Your task to perform on an android device: Open Chrome and go to settings Image 0: 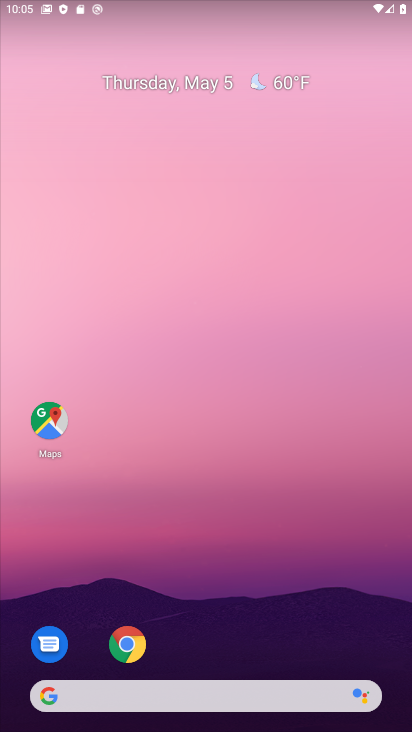
Step 0: drag from (370, 628) to (386, 79)
Your task to perform on an android device: Open Chrome and go to settings Image 1: 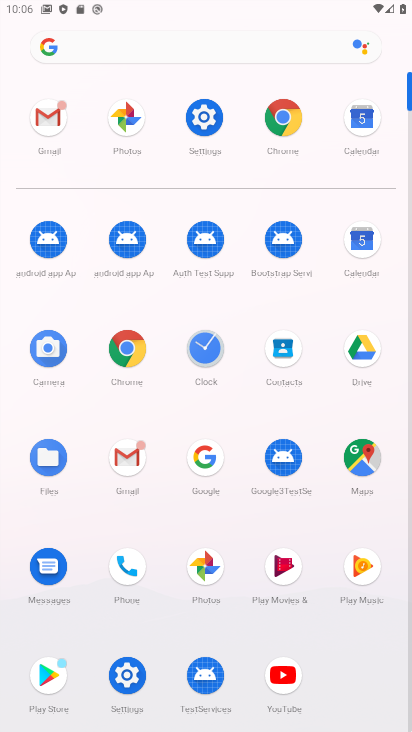
Step 1: click (112, 336)
Your task to perform on an android device: Open Chrome and go to settings Image 2: 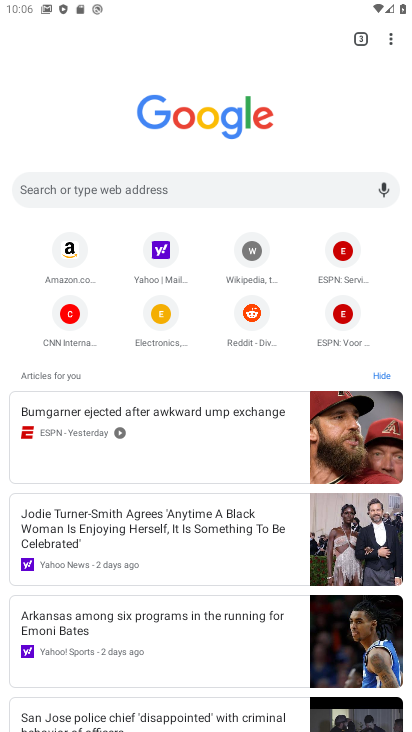
Step 2: task complete